Your task to perform on an android device: See recent photos Image 0: 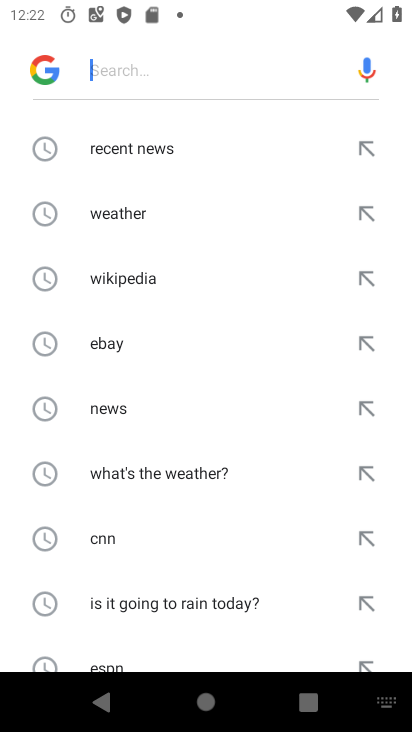
Step 0: press home button
Your task to perform on an android device: See recent photos Image 1: 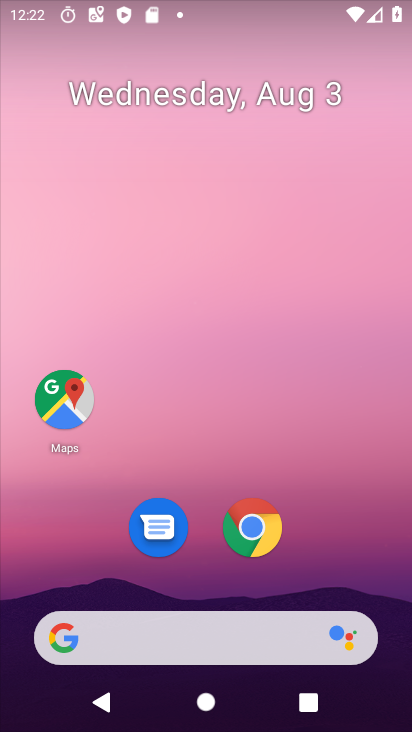
Step 1: drag from (199, 577) to (191, 13)
Your task to perform on an android device: See recent photos Image 2: 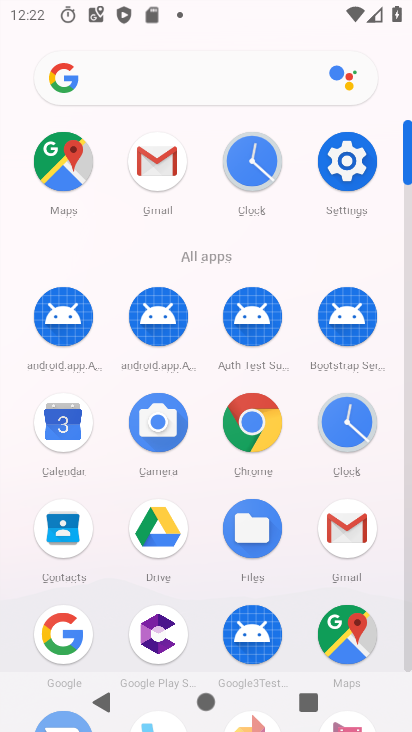
Step 2: drag from (216, 575) to (242, 169)
Your task to perform on an android device: See recent photos Image 3: 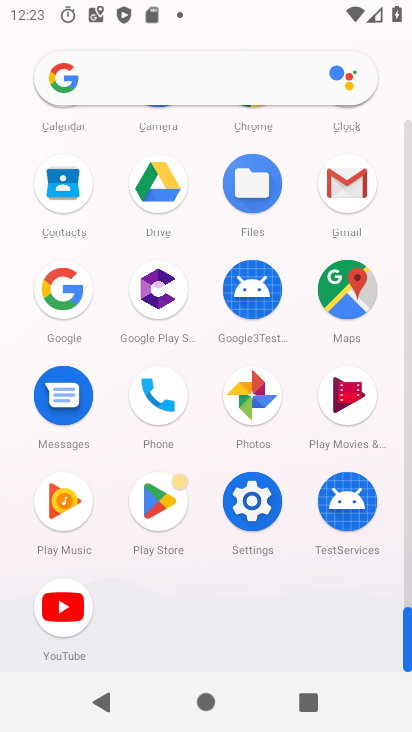
Step 3: click (275, 405)
Your task to perform on an android device: See recent photos Image 4: 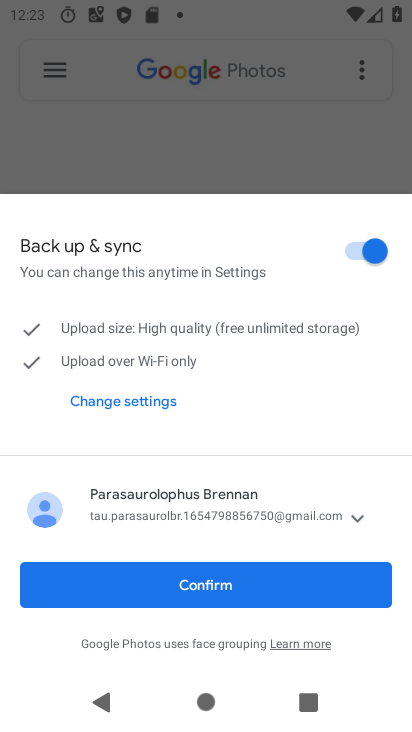
Step 4: click (179, 589)
Your task to perform on an android device: See recent photos Image 5: 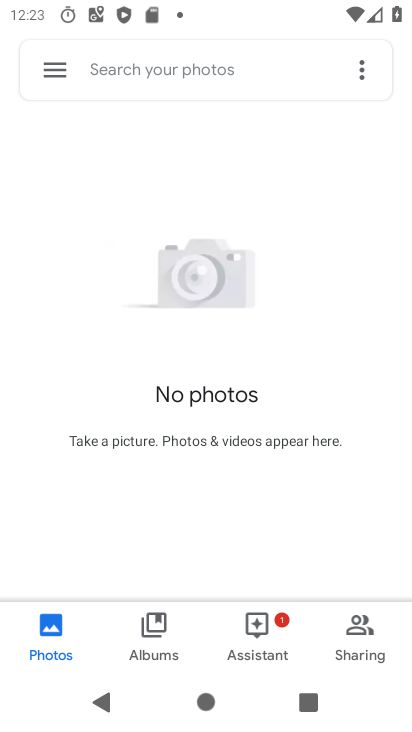
Step 5: task complete